Your task to perform on an android device: Go to eBay Image 0: 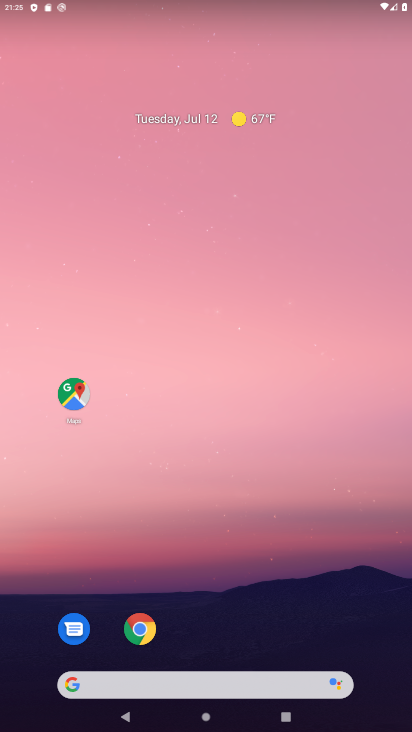
Step 0: click (142, 681)
Your task to perform on an android device: Go to eBay Image 1: 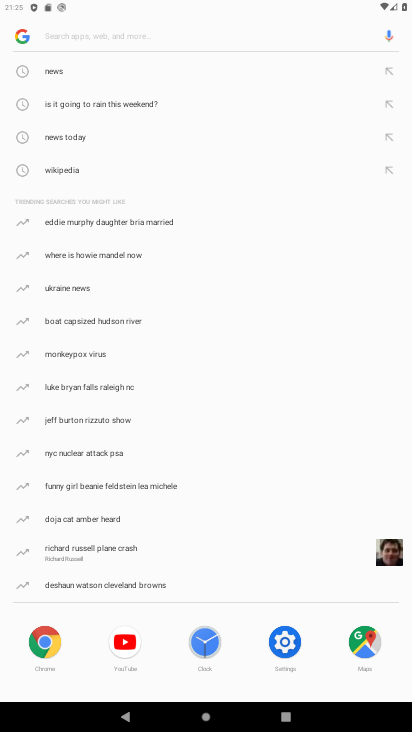
Step 1: type "ebay"
Your task to perform on an android device: Go to eBay Image 2: 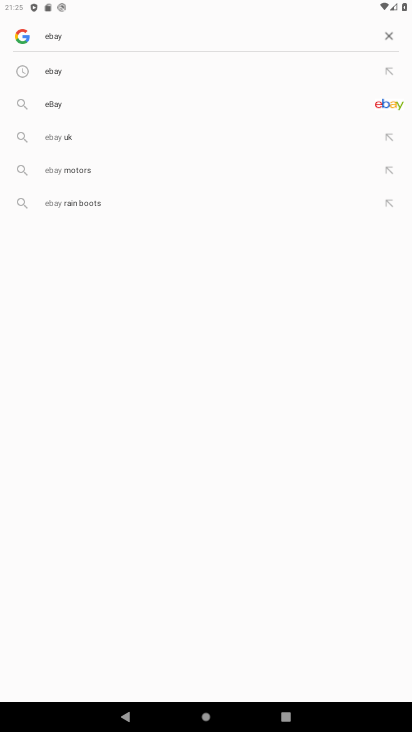
Step 2: click (386, 99)
Your task to perform on an android device: Go to eBay Image 3: 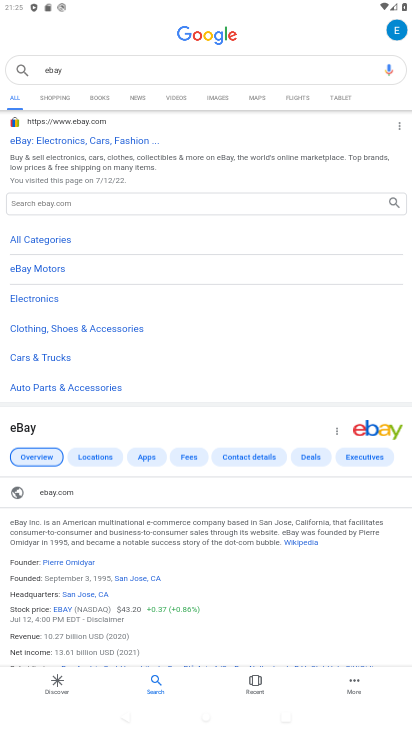
Step 3: click (118, 143)
Your task to perform on an android device: Go to eBay Image 4: 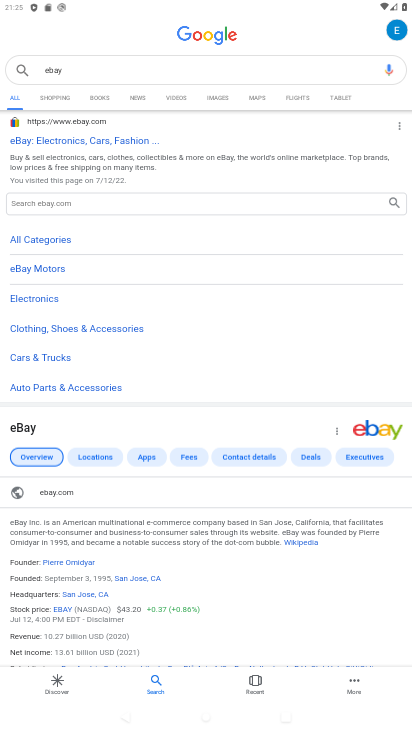
Step 4: click (65, 126)
Your task to perform on an android device: Go to eBay Image 5: 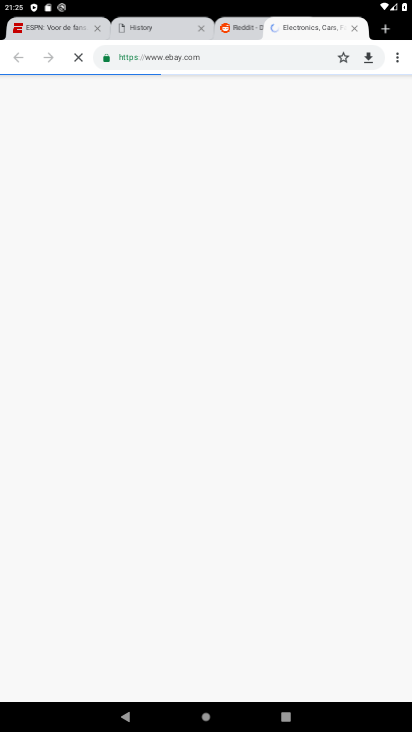
Step 5: click (72, 134)
Your task to perform on an android device: Go to eBay Image 6: 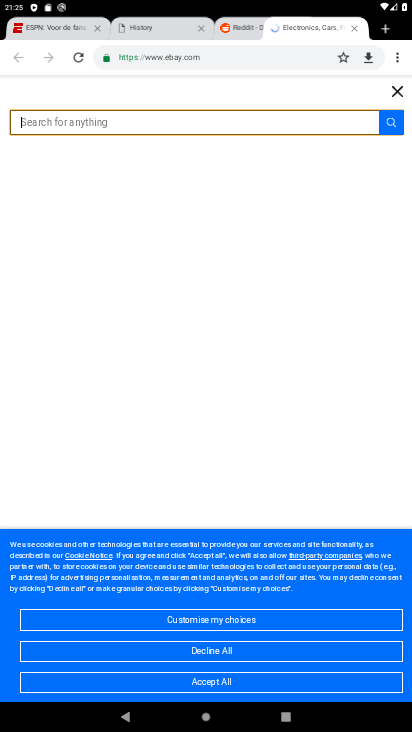
Step 6: task complete